Your task to perform on an android device: Go to ESPN.com Image 0: 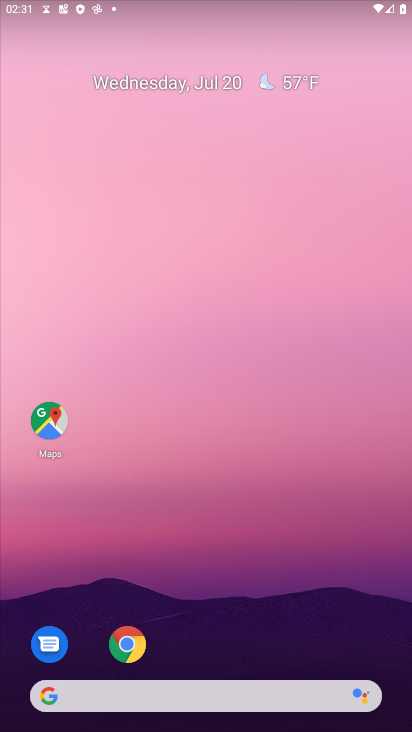
Step 0: press home button
Your task to perform on an android device: Go to ESPN.com Image 1: 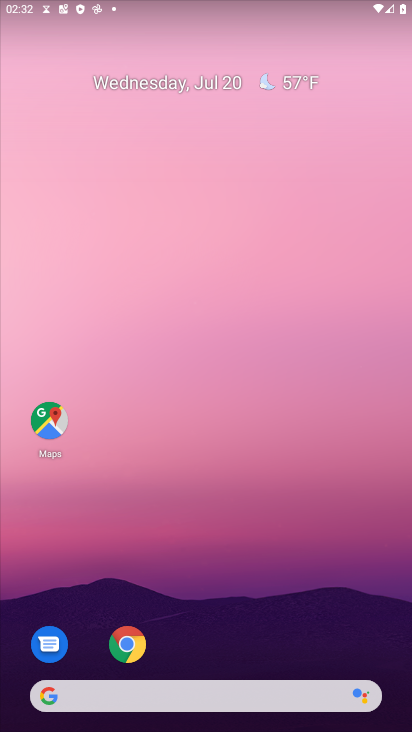
Step 1: click (54, 703)
Your task to perform on an android device: Go to ESPN.com Image 2: 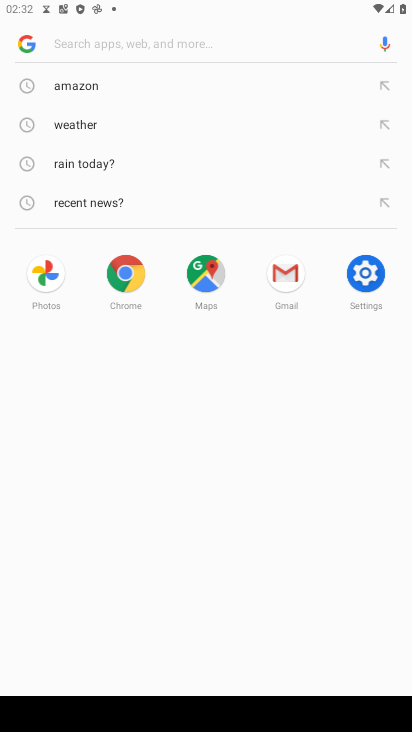
Step 2: type "ESPN.com"
Your task to perform on an android device: Go to ESPN.com Image 3: 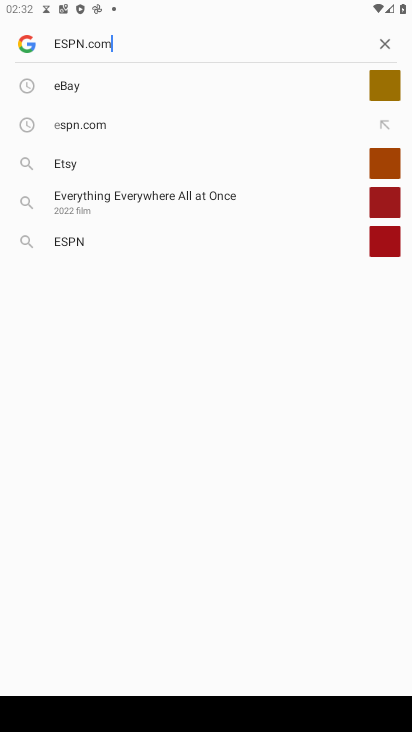
Step 3: press enter
Your task to perform on an android device: Go to ESPN.com Image 4: 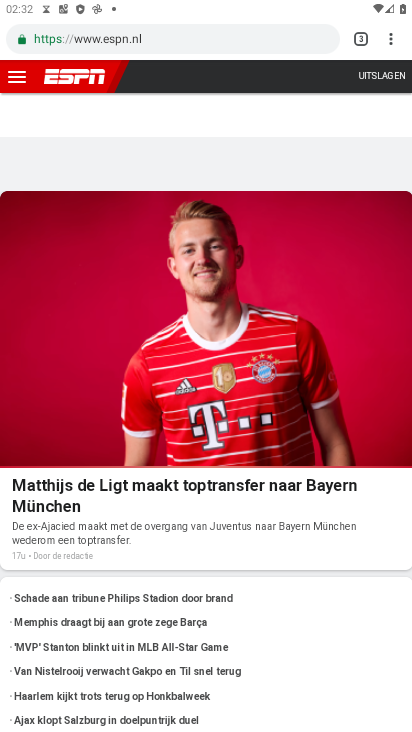
Step 4: task complete